Your task to perform on an android device: Go to eBay Image 0: 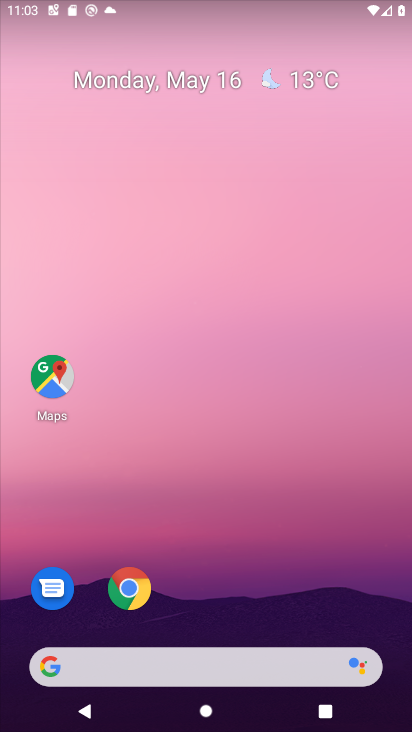
Step 0: click (131, 588)
Your task to perform on an android device: Go to eBay Image 1: 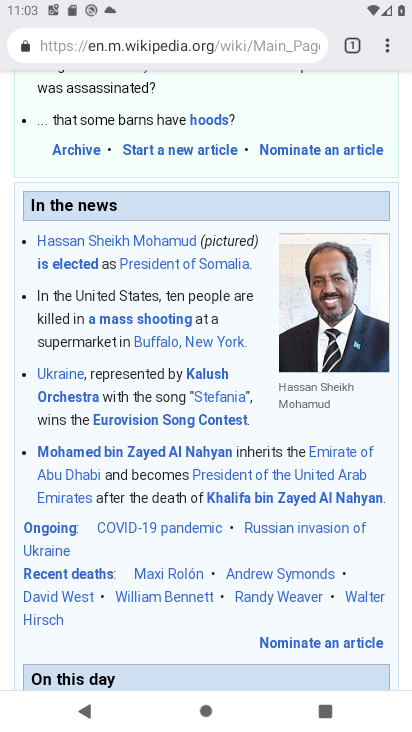
Step 1: click (346, 36)
Your task to perform on an android device: Go to eBay Image 2: 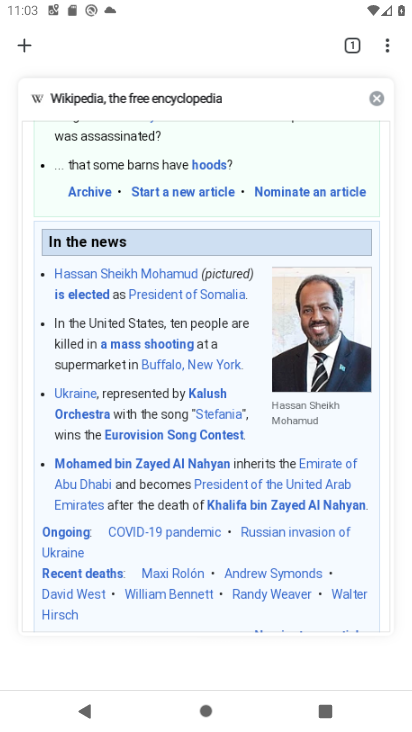
Step 2: click (377, 97)
Your task to perform on an android device: Go to eBay Image 3: 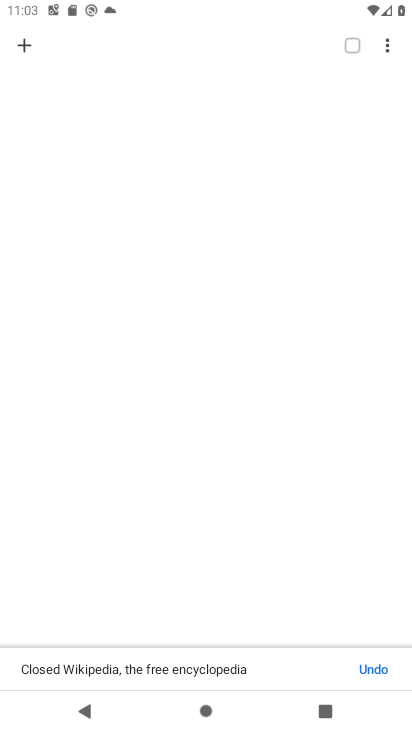
Step 3: click (36, 47)
Your task to perform on an android device: Go to eBay Image 4: 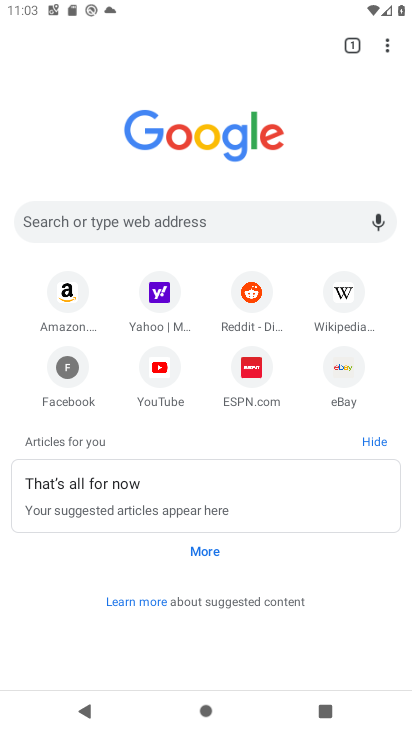
Step 4: click (345, 360)
Your task to perform on an android device: Go to eBay Image 5: 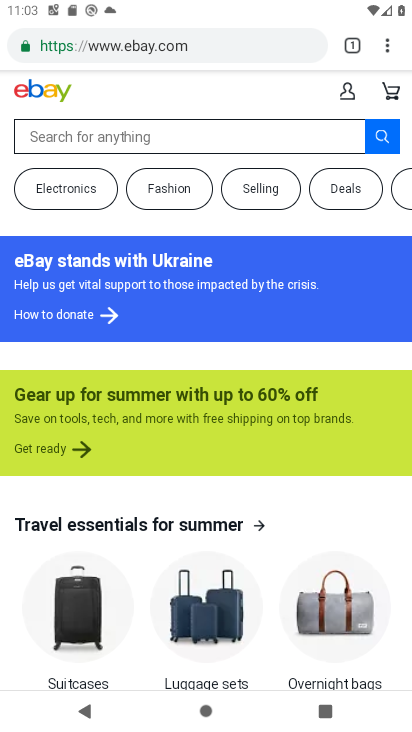
Step 5: task complete